Your task to perform on an android device: Open sound settings Image 0: 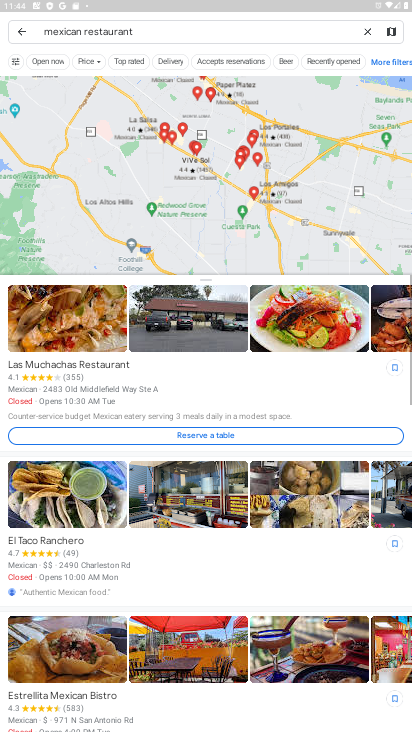
Step 0: press home button
Your task to perform on an android device: Open sound settings Image 1: 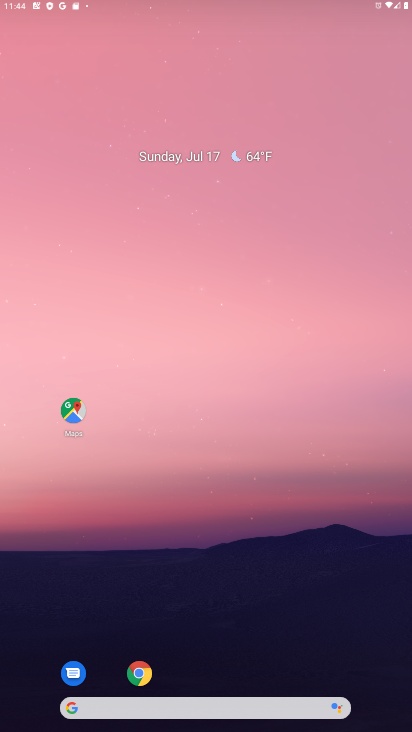
Step 1: drag from (231, 681) to (263, 141)
Your task to perform on an android device: Open sound settings Image 2: 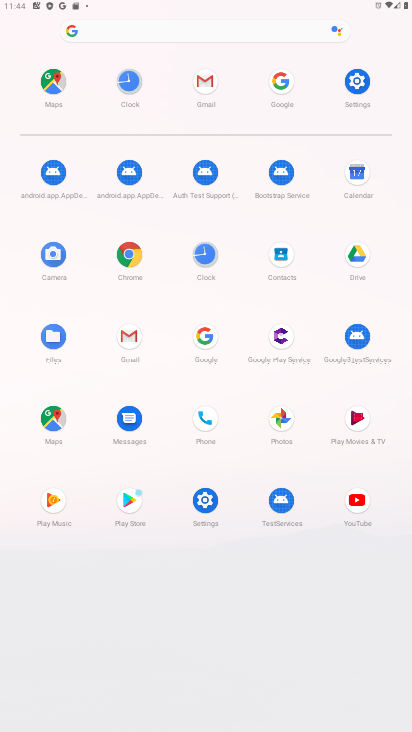
Step 2: click (363, 82)
Your task to perform on an android device: Open sound settings Image 3: 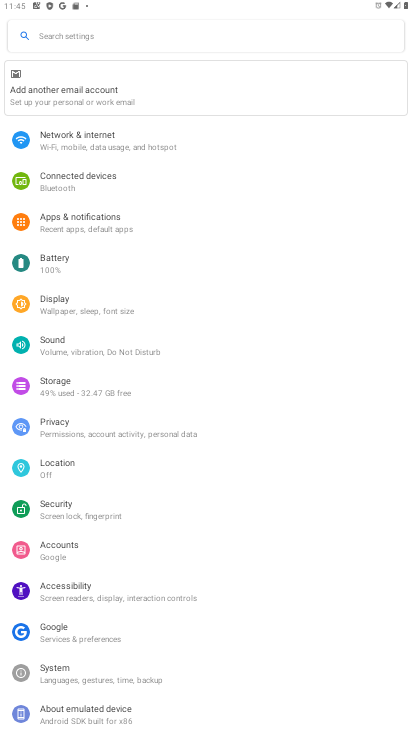
Step 3: drag from (180, 564) to (187, 336)
Your task to perform on an android device: Open sound settings Image 4: 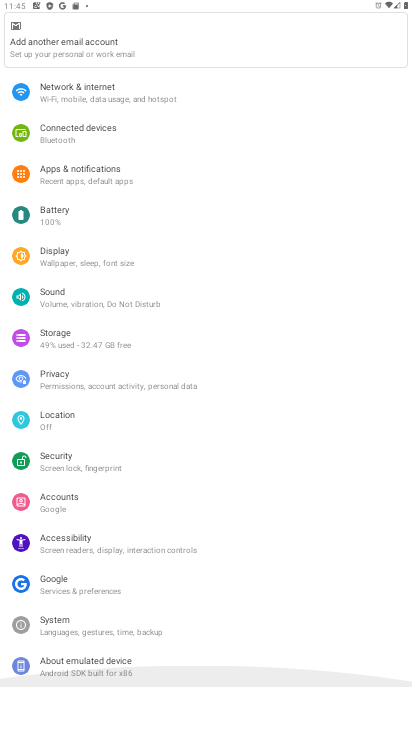
Step 4: click (124, 317)
Your task to perform on an android device: Open sound settings Image 5: 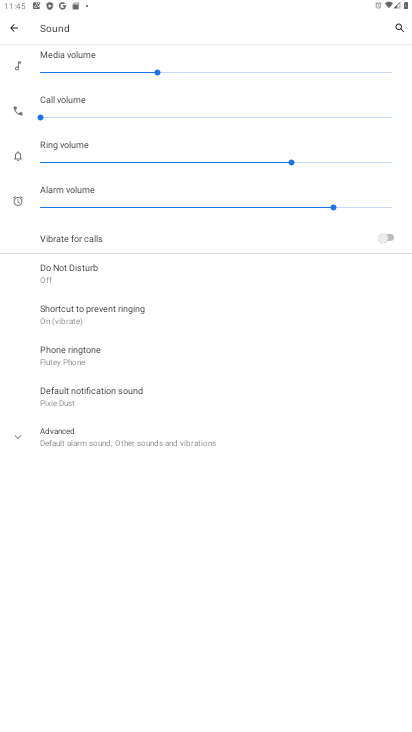
Step 5: task complete